Your task to perform on an android device: Open notification settings Image 0: 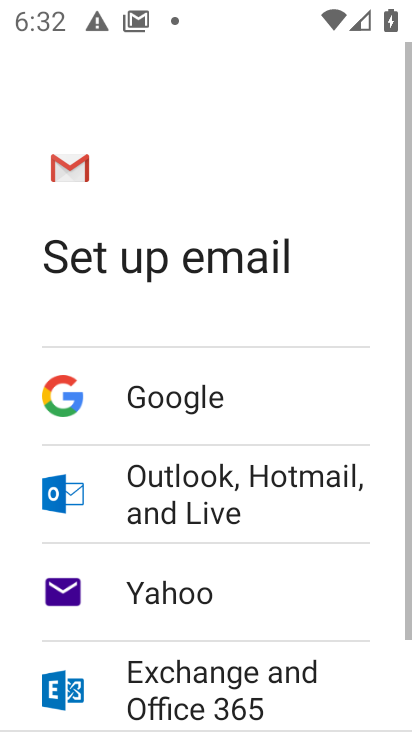
Step 0: press home button
Your task to perform on an android device: Open notification settings Image 1: 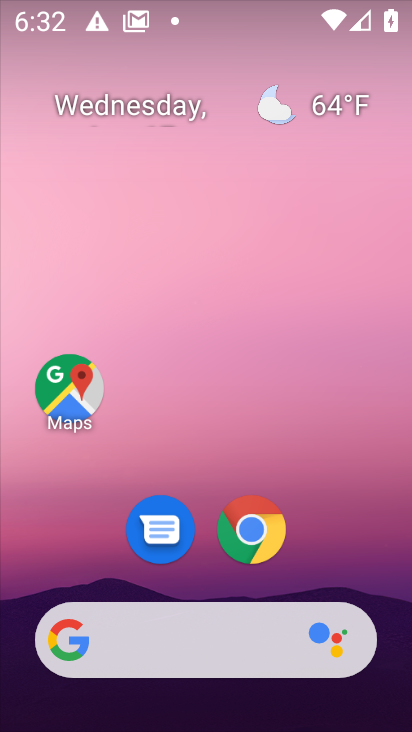
Step 1: drag from (205, 583) to (234, 146)
Your task to perform on an android device: Open notification settings Image 2: 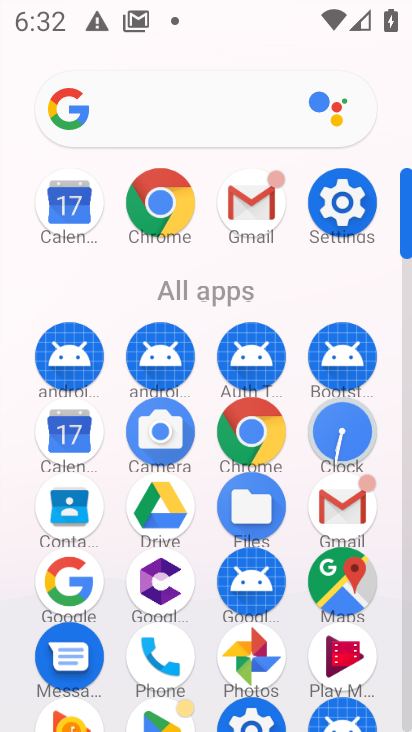
Step 2: click (336, 207)
Your task to perform on an android device: Open notification settings Image 3: 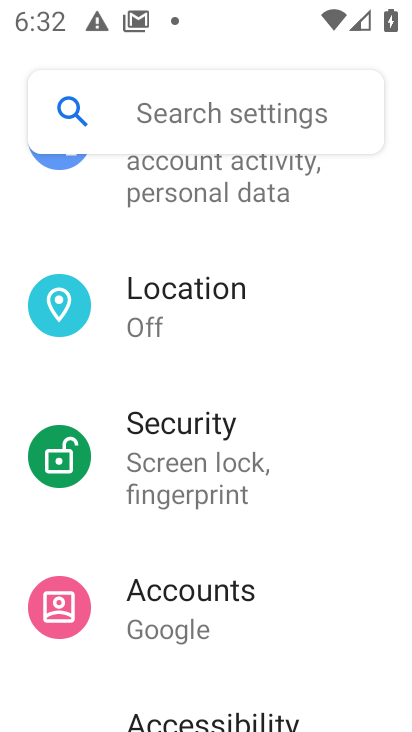
Step 3: drag from (228, 584) to (239, 302)
Your task to perform on an android device: Open notification settings Image 4: 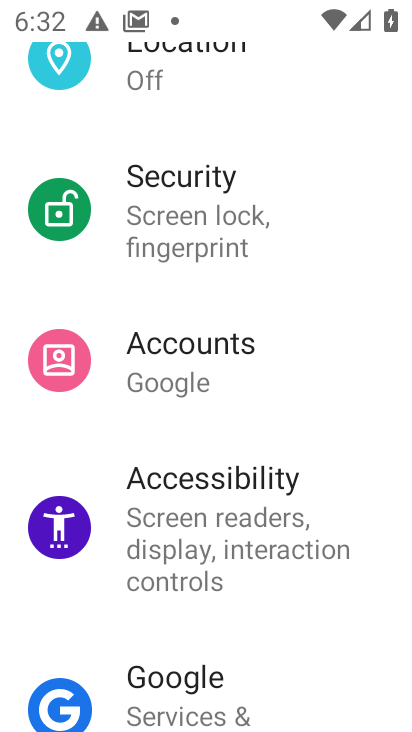
Step 4: drag from (209, 539) to (191, 332)
Your task to perform on an android device: Open notification settings Image 5: 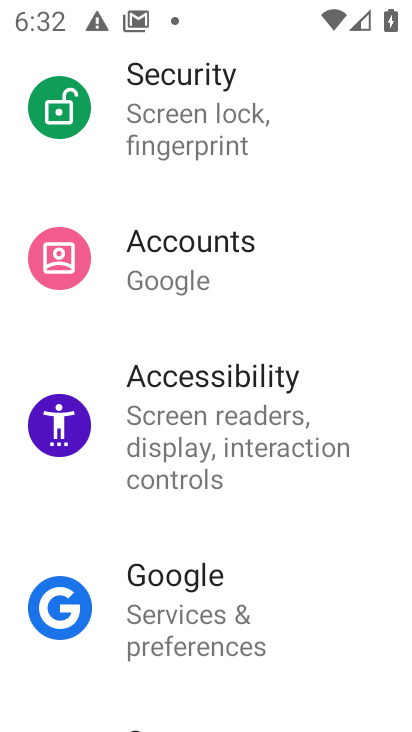
Step 5: drag from (264, 432) to (264, 633)
Your task to perform on an android device: Open notification settings Image 6: 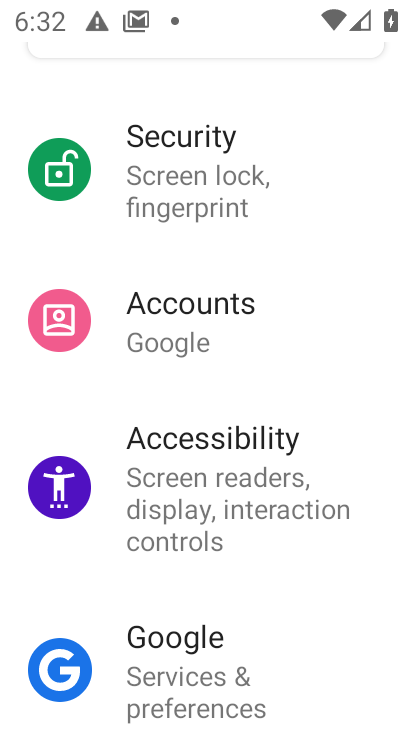
Step 6: drag from (247, 500) to (215, 724)
Your task to perform on an android device: Open notification settings Image 7: 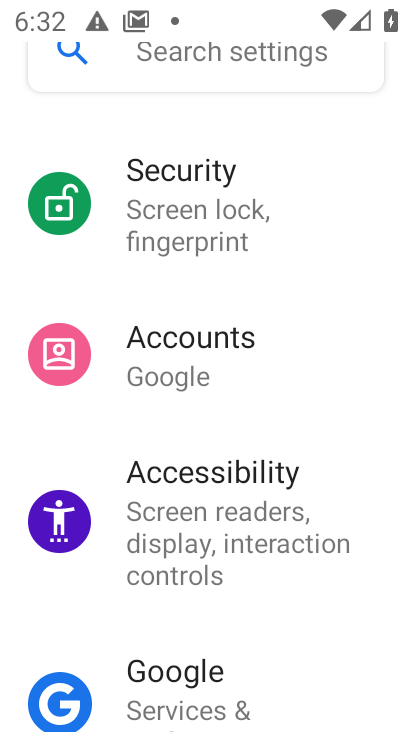
Step 7: drag from (229, 255) to (241, 570)
Your task to perform on an android device: Open notification settings Image 8: 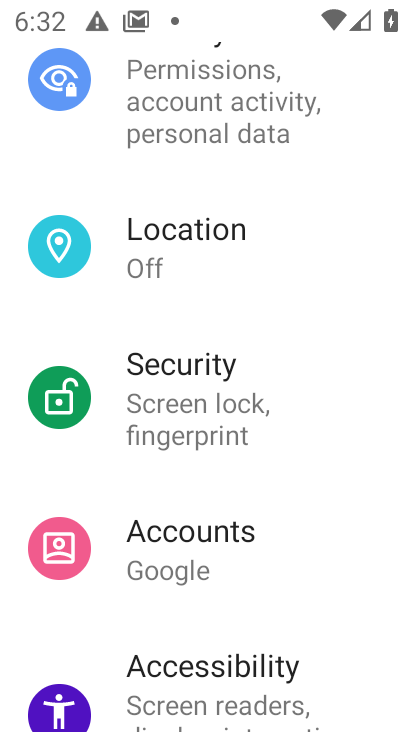
Step 8: drag from (278, 318) to (278, 725)
Your task to perform on an android device: Open notification settings Image 9: 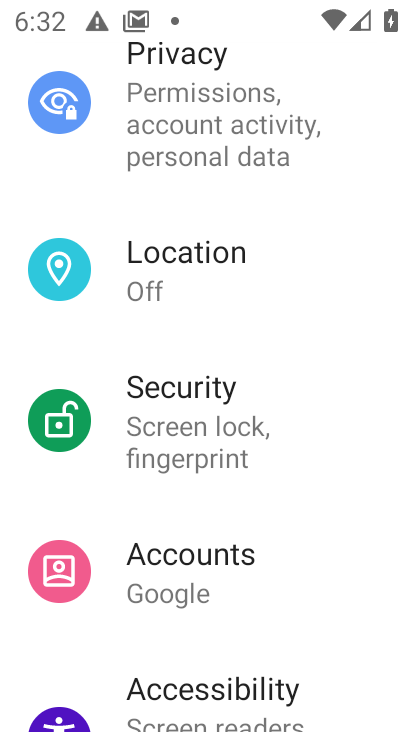
Step 9: drag from (165, 237) to (172, 628)
Your task to perform on an android device: Open notification settings Image 10: 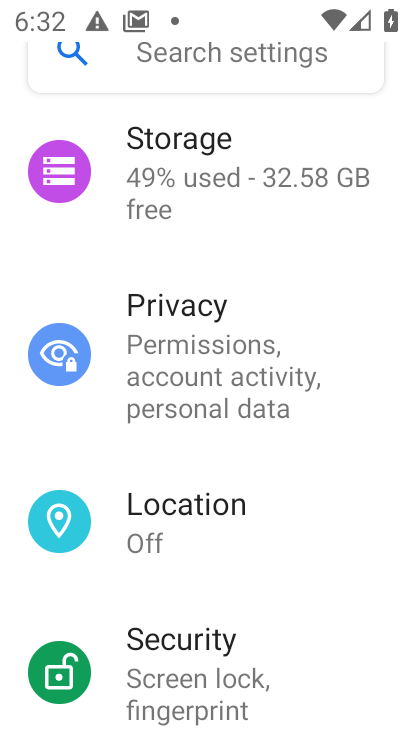
Step 10: drag from (205, 319) to (138, 731)
Your task to perform on an android device: Open notification settings Image 11: 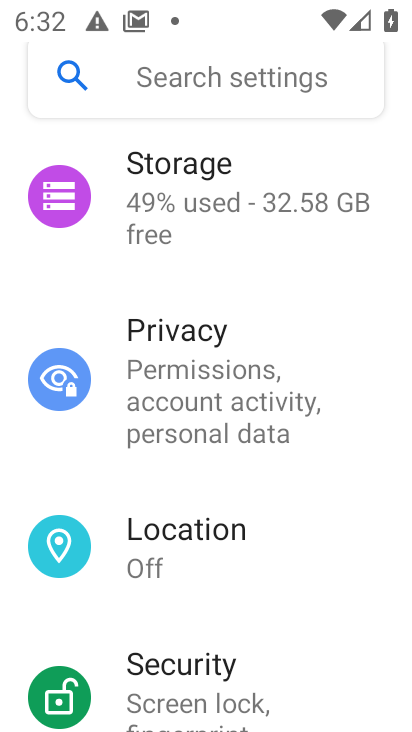
Step 11: click (282, 702)
Your task to perform on an android device: Open notification settings Image 12: 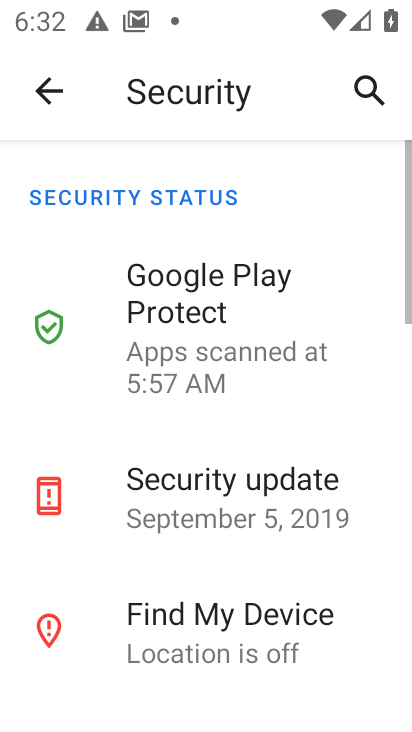
Step 12: click (48, 96)
Your task to perform on an android device: Open notification settings Image 13: 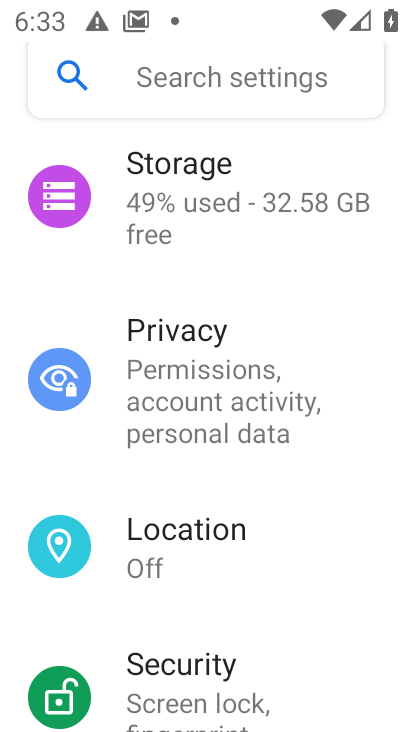
Step 13: drag from (309, 306) to (257, 717)
Your task to perform on an android device: Open notification settings Image 14: 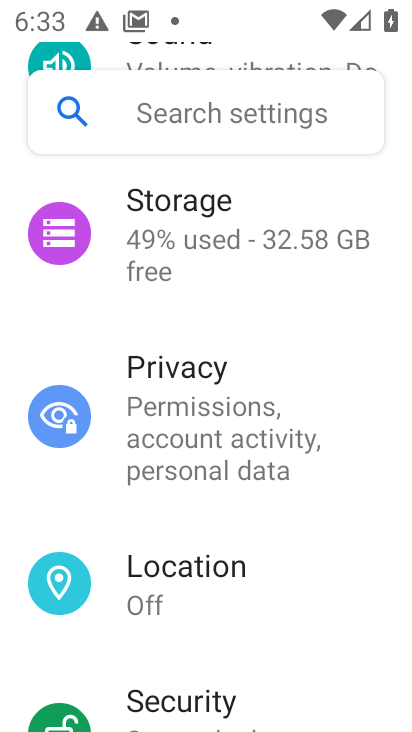
Step 14: drag from (287, 345) to (286, 596)
Your task to perform on an android device: Open notification settings Image 15: 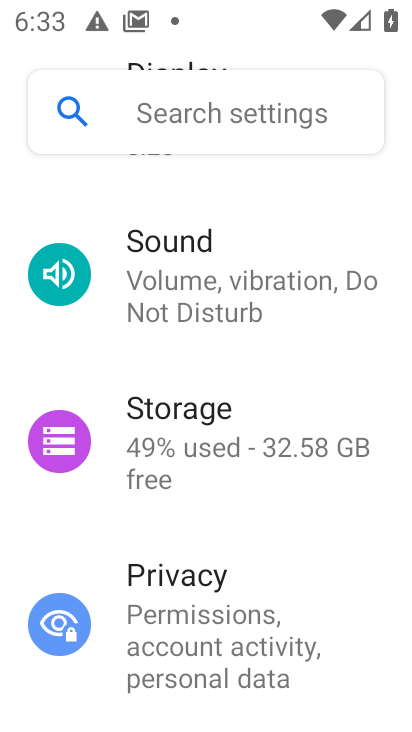
Step 15: drag from (233, 246) to (233, 507)
Your task to perform on an android device: Open notification settings Image 16: 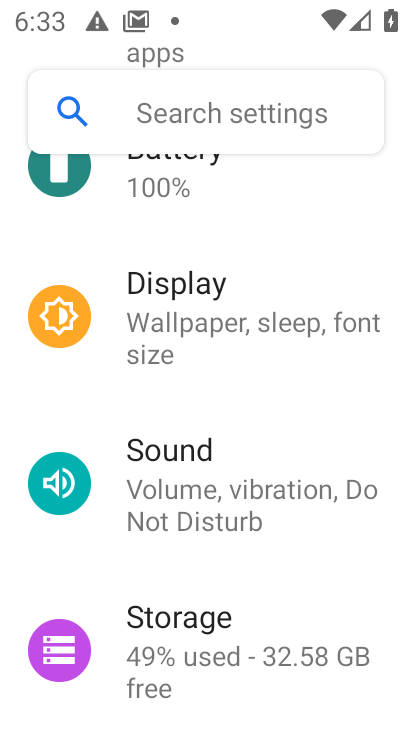
Step 16: drag from (254, 279) to (258, 552)
Your task to perform on an android device: Open notification settings Image 17: 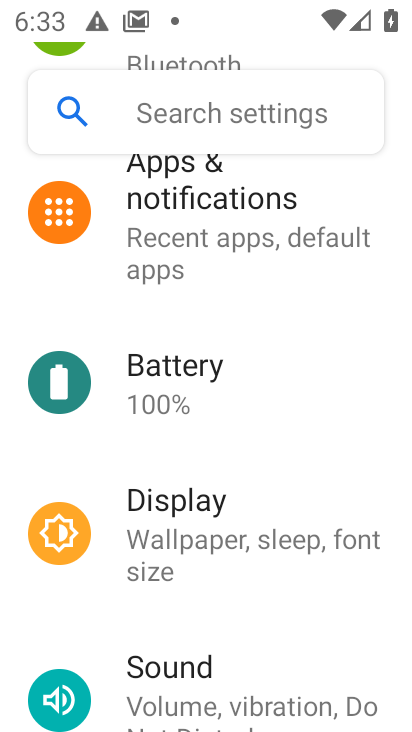
Step 17: click (220, 219)
Your task to perform on an android device: Open notification settings Image 18: 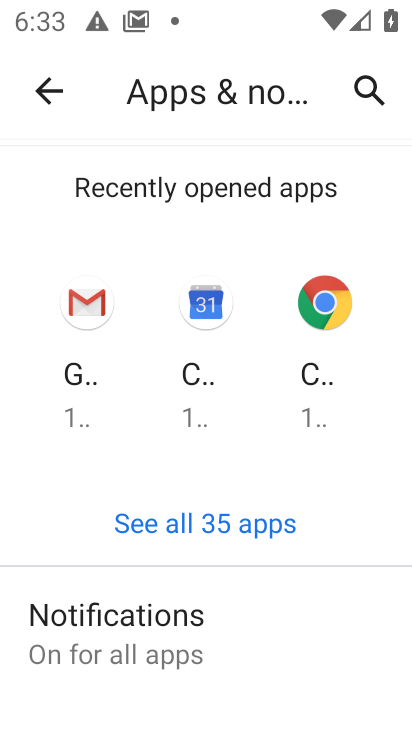
Step 18: task complete